Your task to perform on an android device: set the stopwatch Image 0: 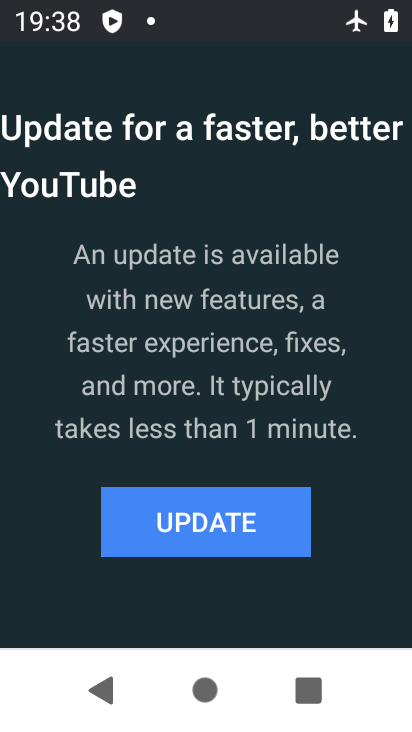
Step 0: press home button
Your task to perform on an android device: set the stopwatch Image 1: 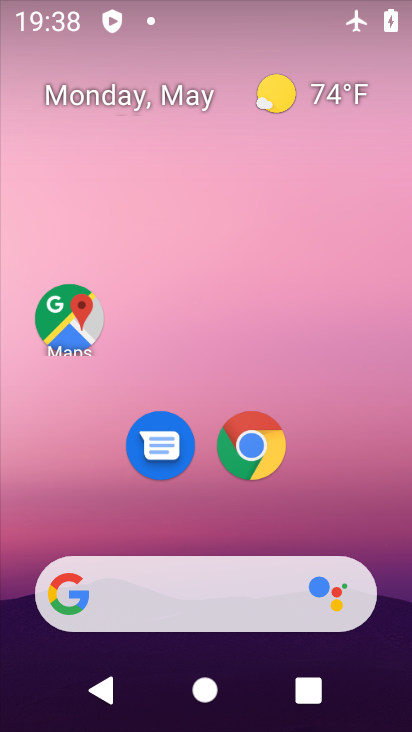
Step 1: drag from (174, 562) to (288, 148)
Your task to perform on an android device: set the stopwatch Image 2: 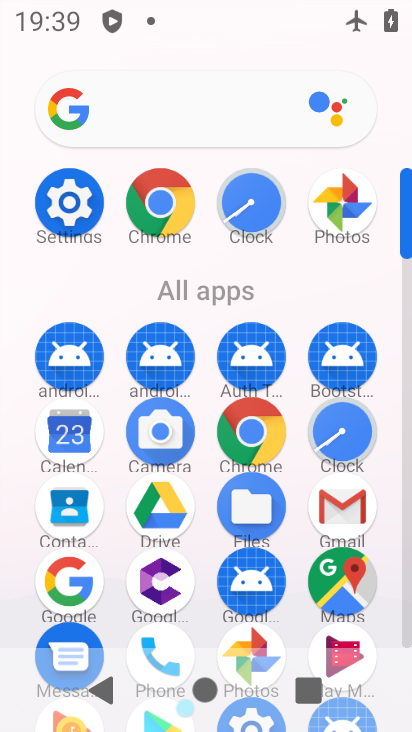
Step 2: click (347, 445)
Your task to perform on an android device: set the stopwatch Image 3: 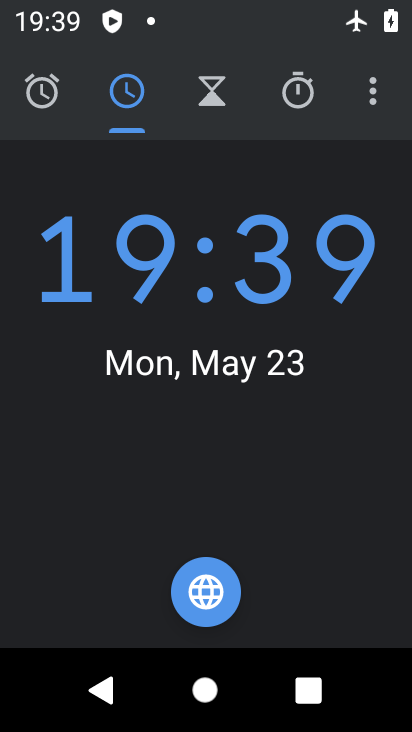
Step 3: click (299, 106)
Your task to perform on an android device: set the stopwatch Image 4: 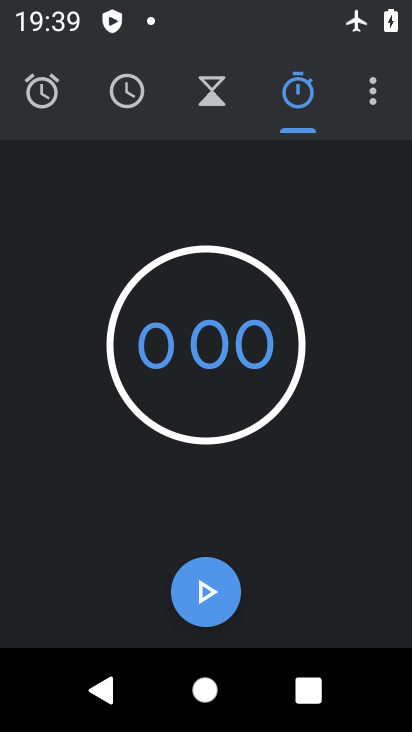
Step 4: click (199, 348)
Your task to perform on an android device: set the stopwatch Image 5: 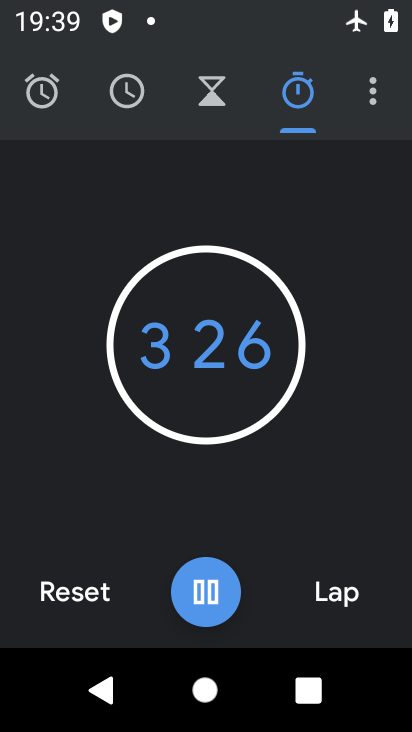
Step 5: click (199, 348)
Your task to perform on an android device: set the stopwatch Image 6: 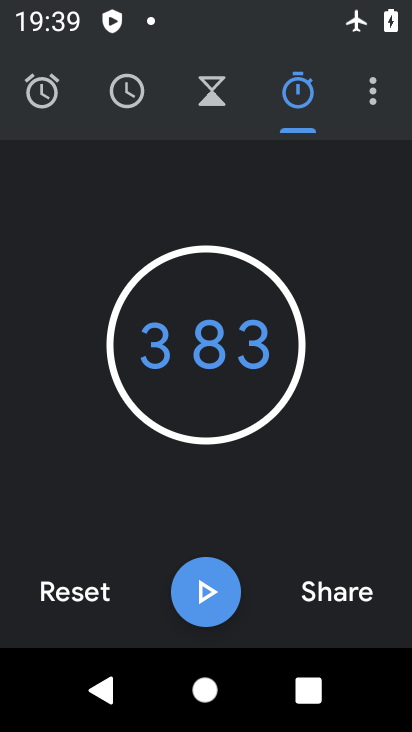
Step 6: task complete